Your task to perform on an android device: turn on notifications settings in the gmail app Image 0: 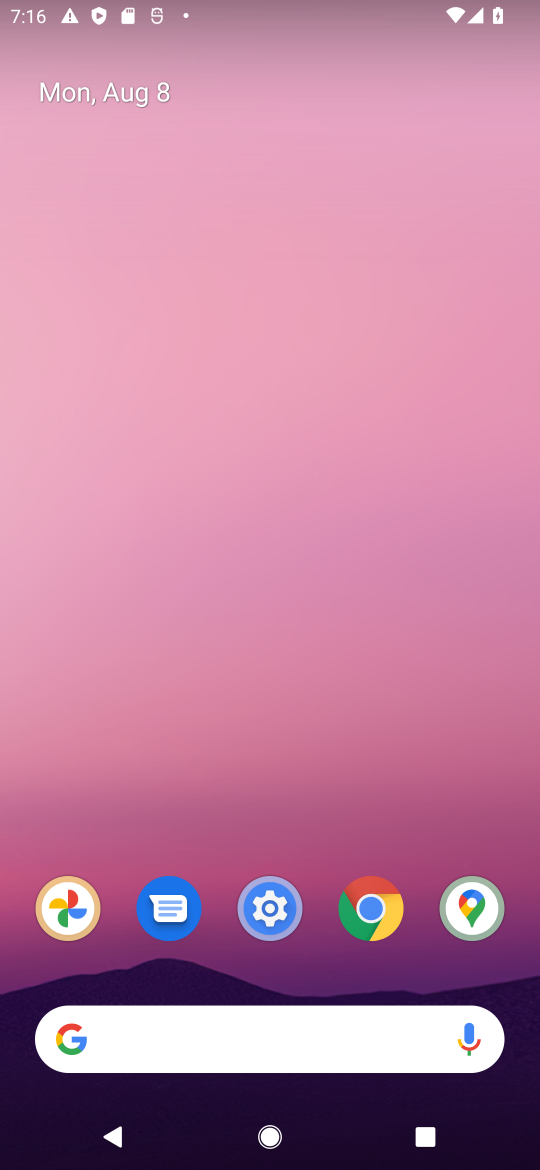
Step 0: click (249, 930)
Your task to perform on an android device: turn on notifications settings in the gmail app Image 1: 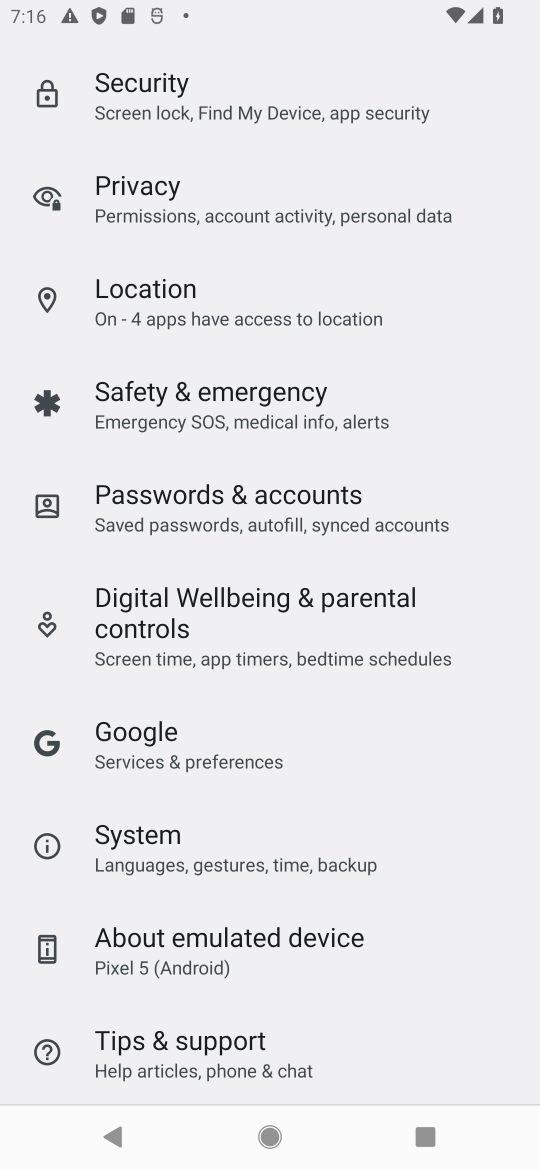
Step 1: drag from (328, 75) to (378, 1046)
Your task to perform on an android device: turn on notifications settings in the gmail app Image 2: 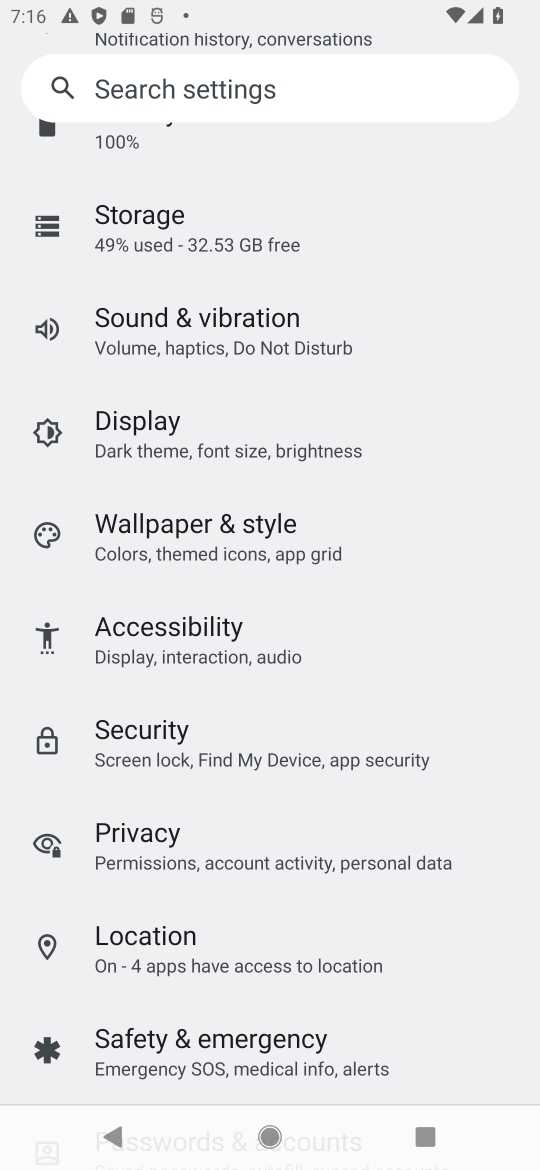
Step 2: drag from (424, 133) to (374, 1033)
Your task to perform on an android device: turn on notifications settings in the gmail app Image 3: 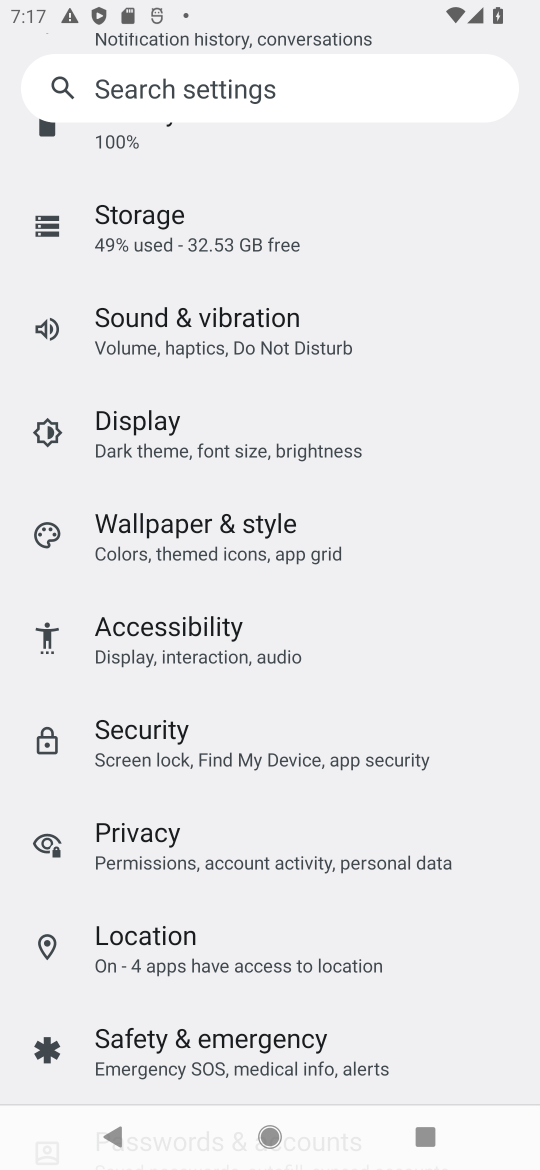
Step 3: drag from (296, 619) to (268, 848)
Your task to perform on an android device: turn on notifications settings in the gmail app Image 4: 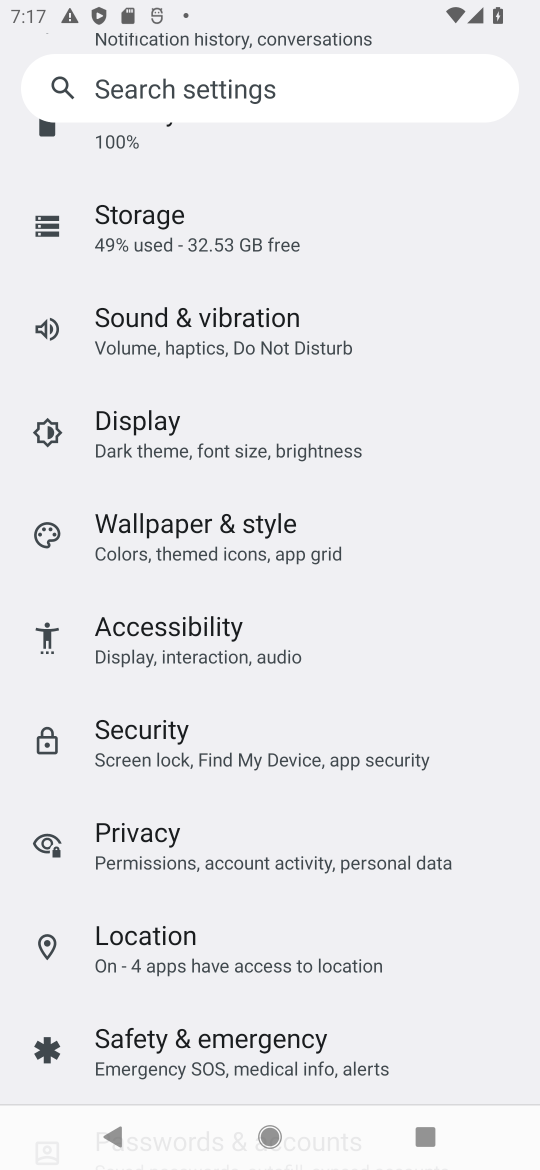
Step 4: drag from (270, 196) to (290, 899)
Your task to perform on an android device: turn on notifications settings in the gmail app Image 5: 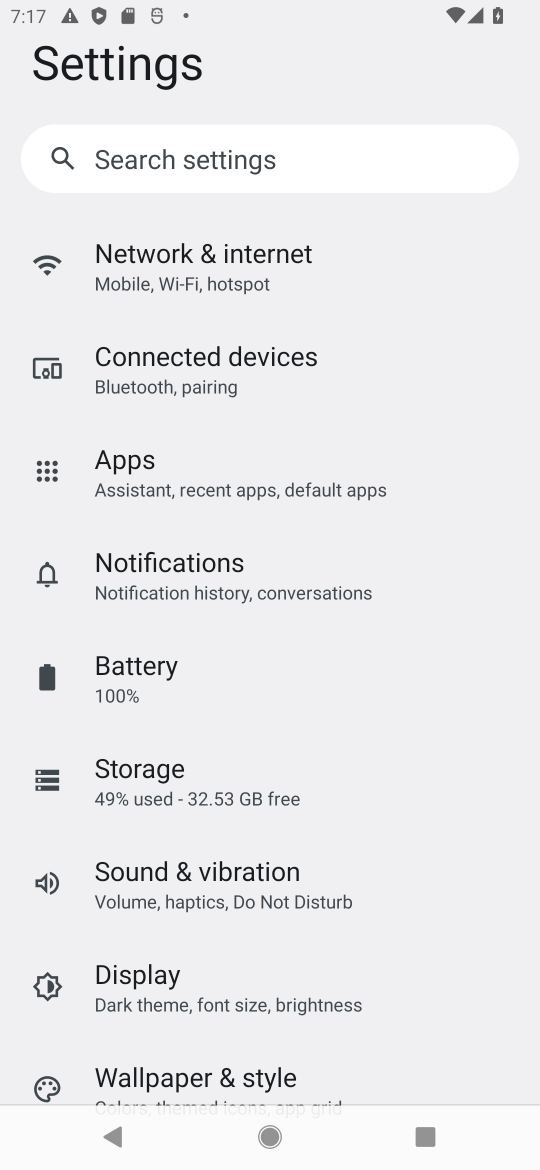
Step 5: click (174, 581)
Your task to perform on an android device: turn on notifications settings in the gmail app Image 6: 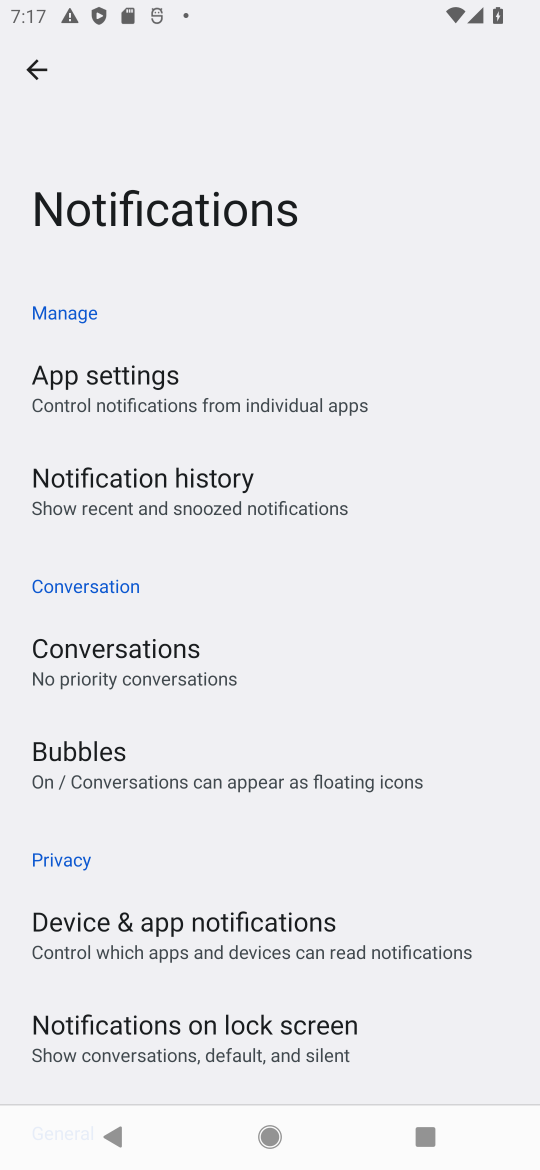
Step 6: click (229, 404)
Your task to perform on an android device: turn on notifications settings in the gmail app Image 7: 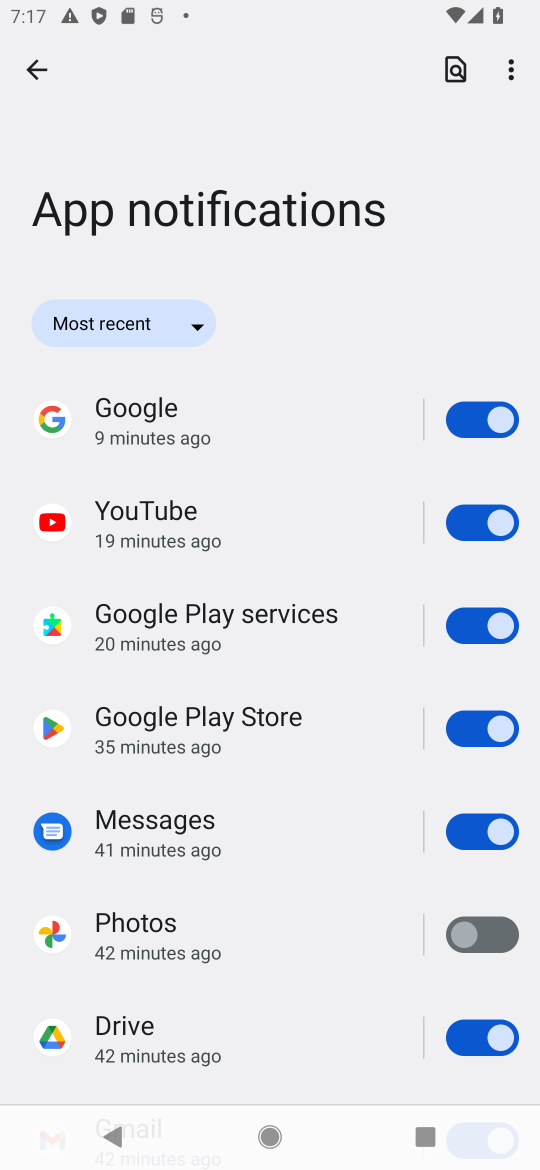
Step 7: task complete